Your task to perform on an android device: turn off airplane mode Image 0: 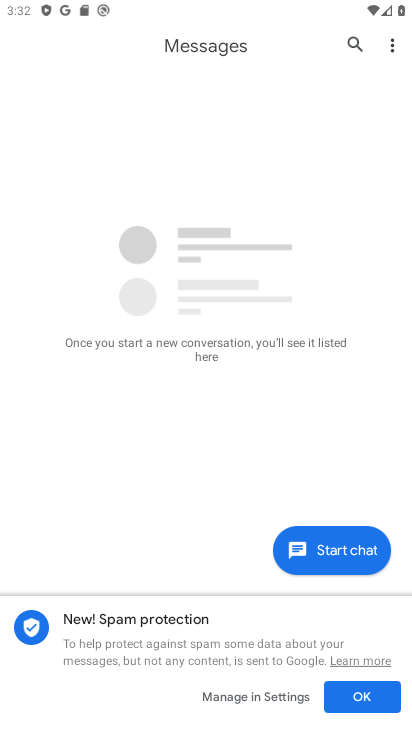
Step 0: press back button
Your task to perform on an android device: turn off airplane mode Image 1: 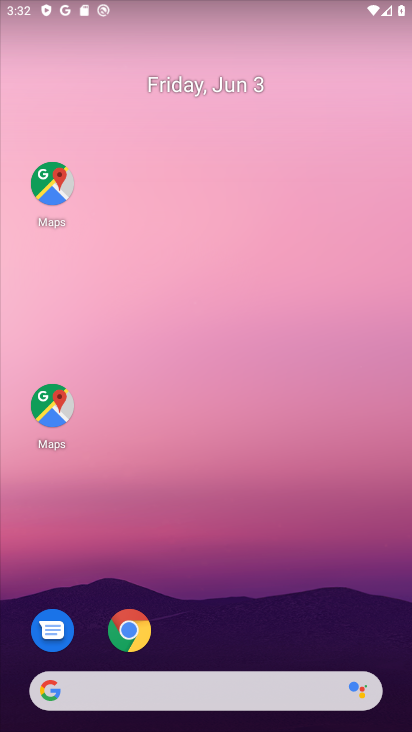
Step 1: drag from (213, 715) to (215, 149)
Your task to perform on an android device: turn off airplane mode Image 2: 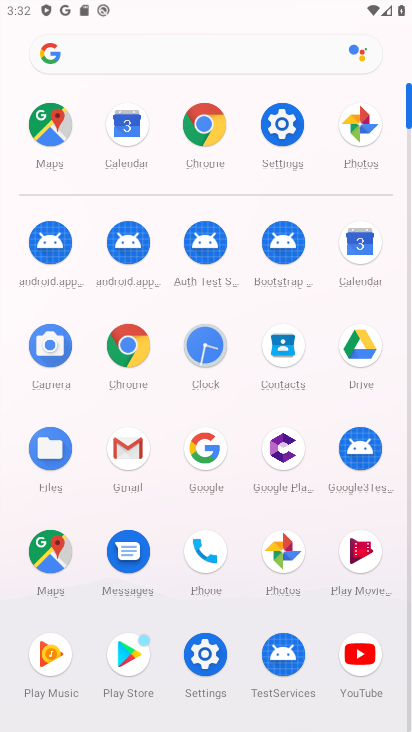
Step 2: click (284, 135)
Your task to perform on an android device: turn off airplane mode Image 3: 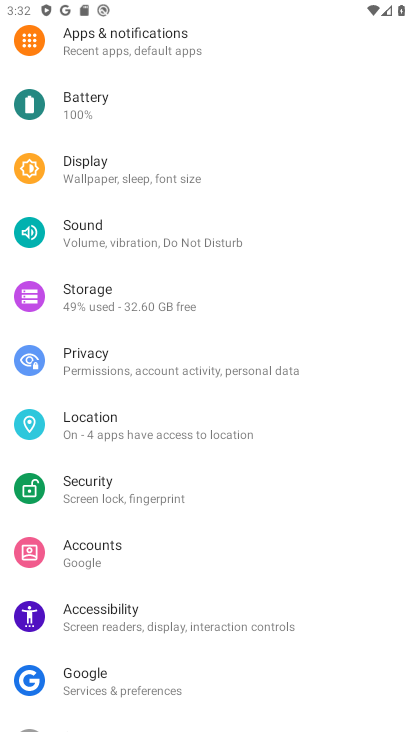
Step 3: drag from (137, 76) to (205, 571)
Your task to perform on an android device: turn off airplane mode Image 4: 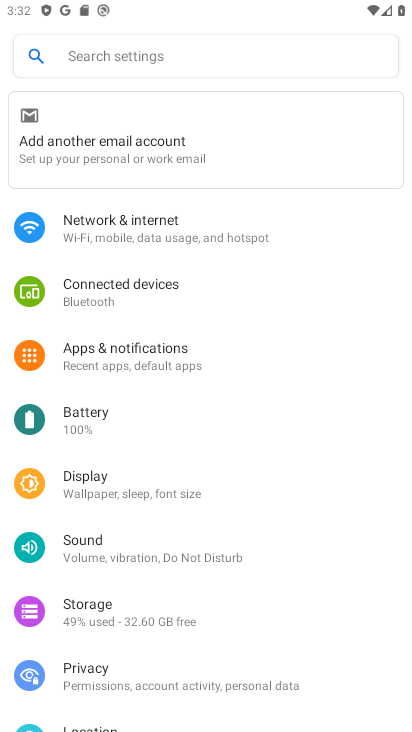
Step 4: click (125, 225)
Your task to perform on an android device: turn off airplane mode Image 5: 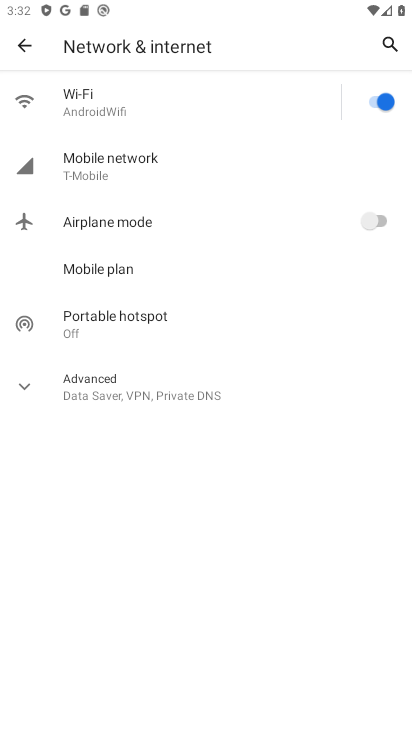
Step 5: task complete